Your task to perform on an android device: Go to settings Image 0: 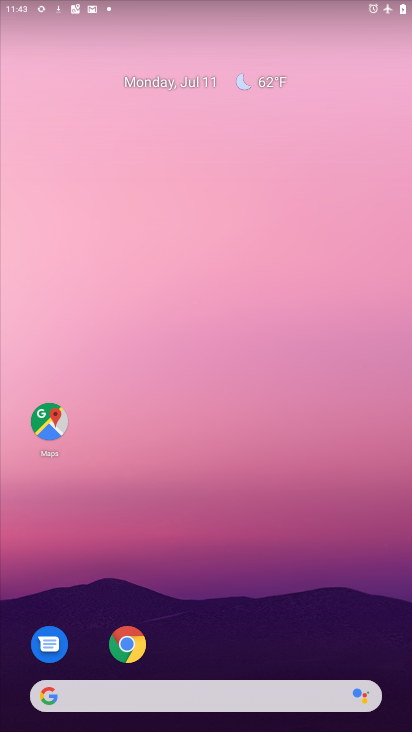
Step 0: drag from (212, 657) to (306, 3)
Your task to perform on an android device: Go to settings Image 1: 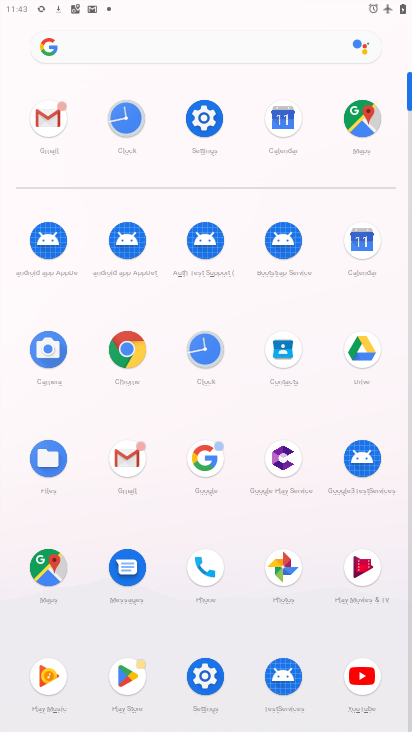
Step 1: click (211, 138)
Your task to perform on an android device: Go to settings Image 2: 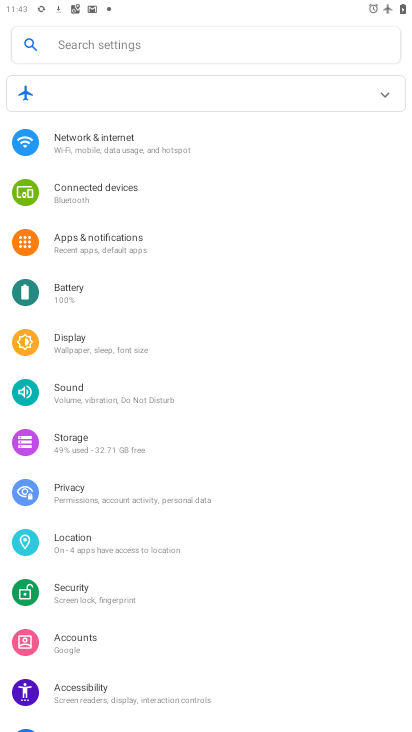
Step 2: task complete